Your task to perform on an android device: change the clock display to digital Image 0: 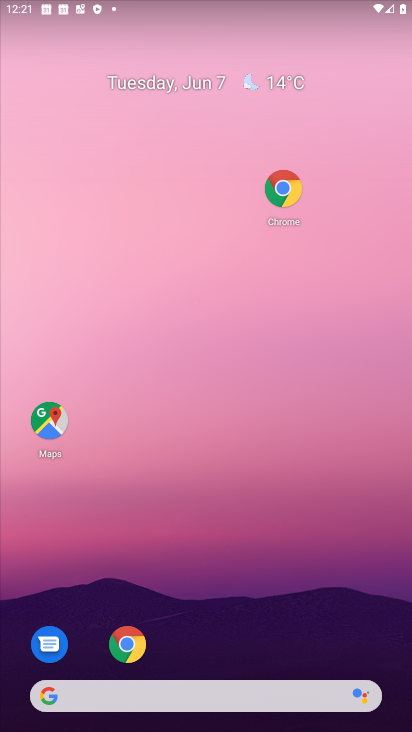
Step 0: drag from (256, 609) to (210, 175)
Your task to perform on an android device: change the clock display to digital Image 1: 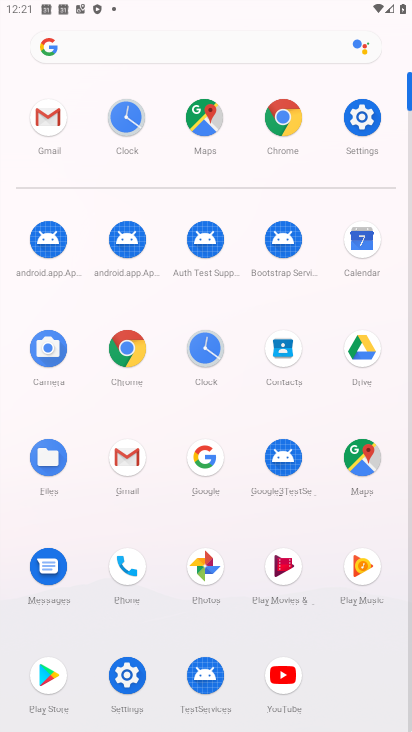
Step 1: click (206, 348)
Your task to perform on an android device: change the clock display to digital Image 2: 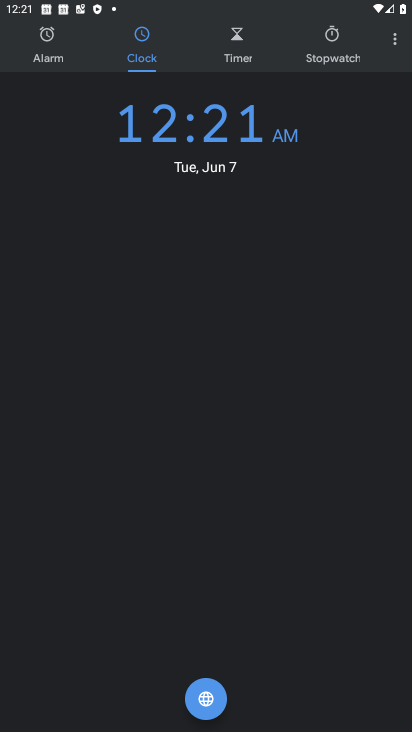
Step 2: click (394, 39)
Your task to perform on an android device: change the clock display to digital Image 3: 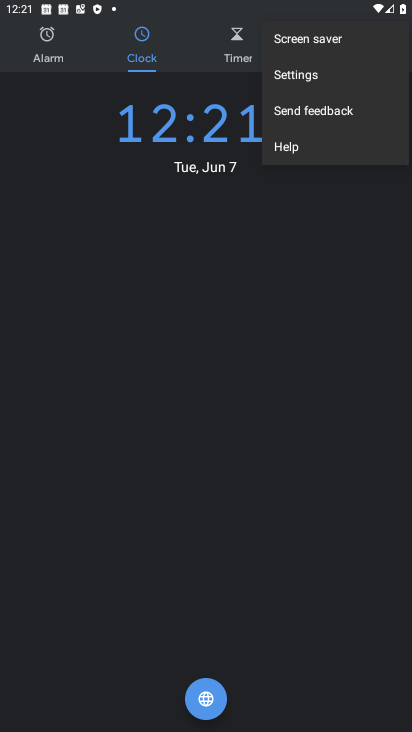
Step 3: click (316, 64)
Your task to perform on an android device: change the clock display to digital Image 4: 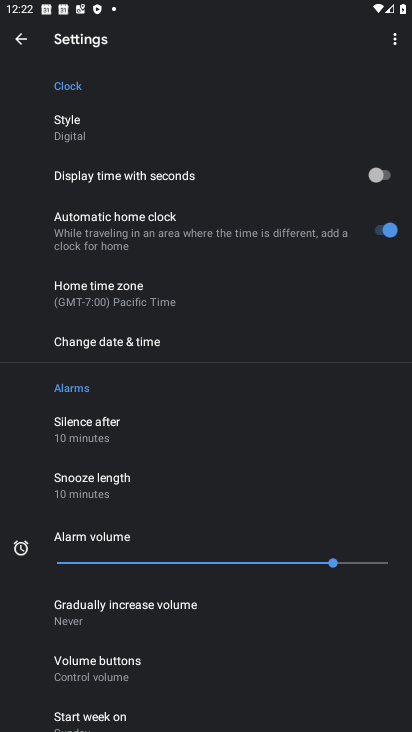
Step 4: task complete